Your task to perform on an android device: How do I get to the nearest Target? Image 0: 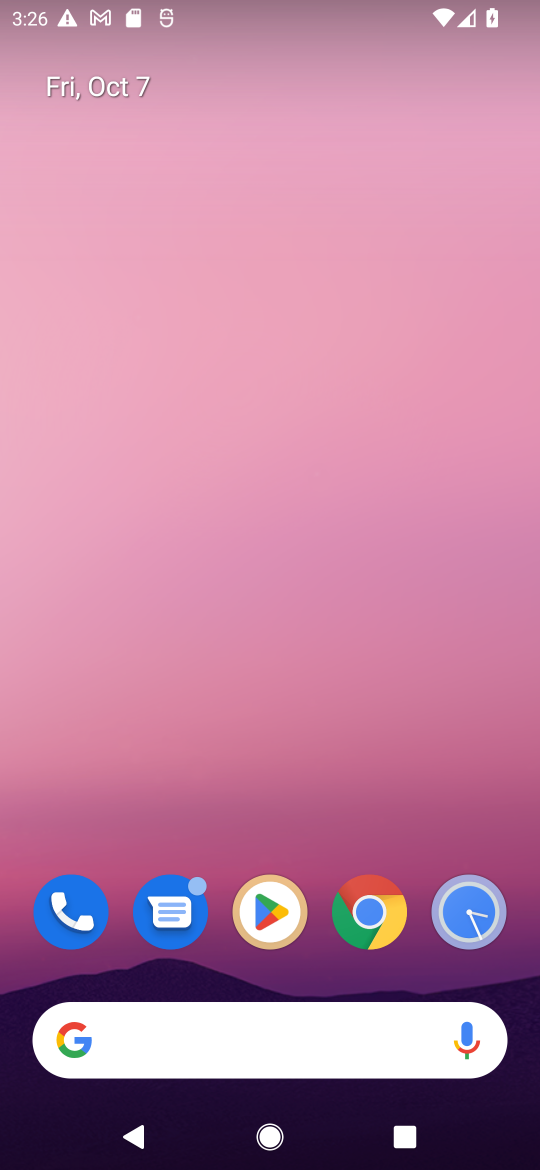
Step 0: drag from (283, 906) to (301, 341)
Your task to perform on an android device: How do I get to the nearest Target? Image 1: 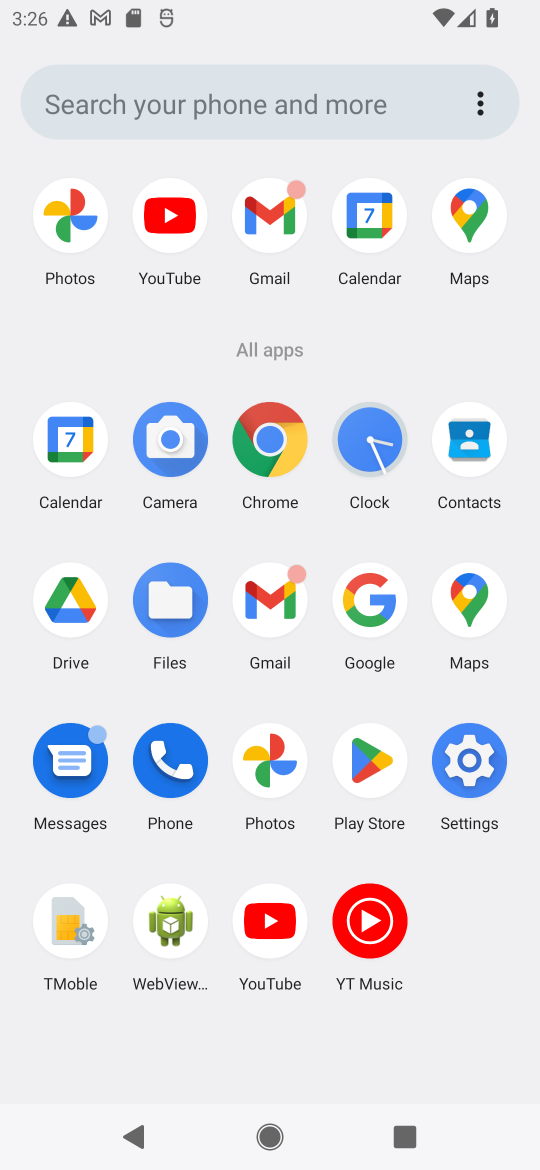
Step 1: click (353, 593)
Your task to perform on an android device: How do I get to the nearest Target? Image 2: 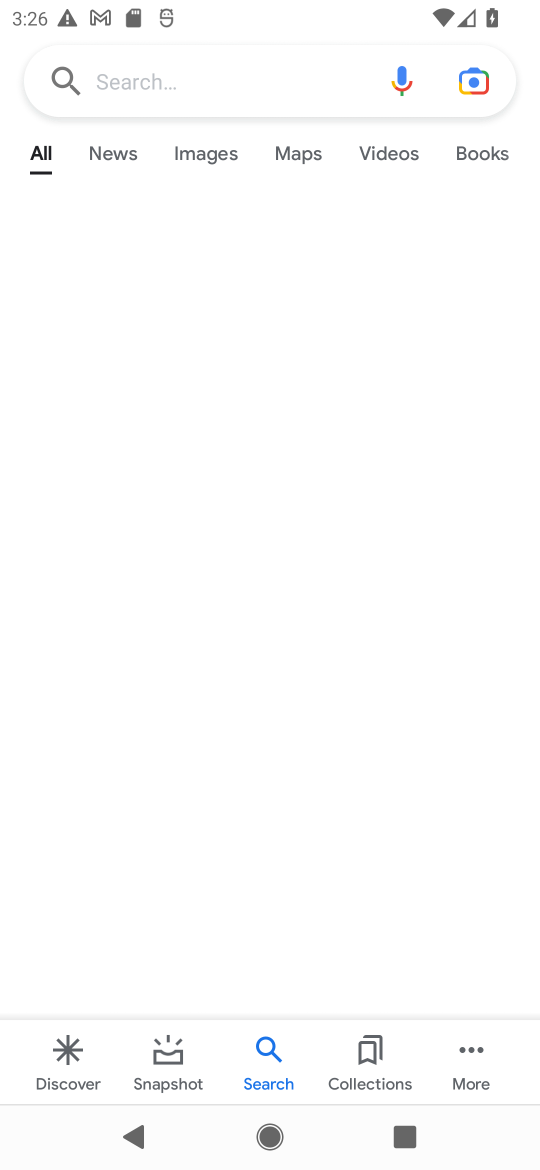
Step 2: click (220, 72)
Your task to perform on an android device: How do I get to the nearest Target? Image 3: 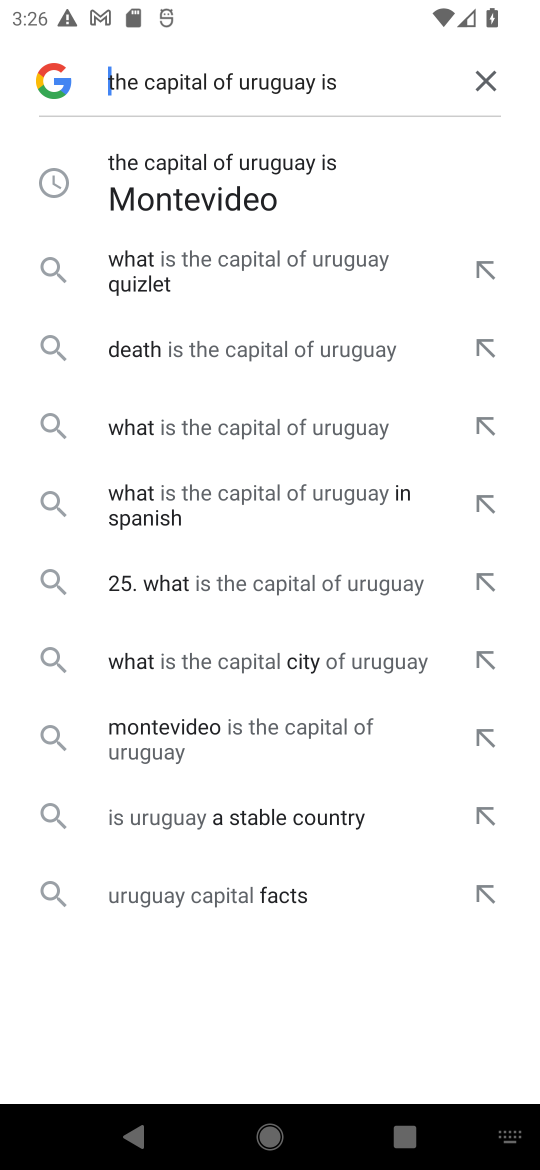
Step 3: type "How do I get to the nearest Target "
Your task to perform on an android device: How do I get to the nearest Target? Image 4: 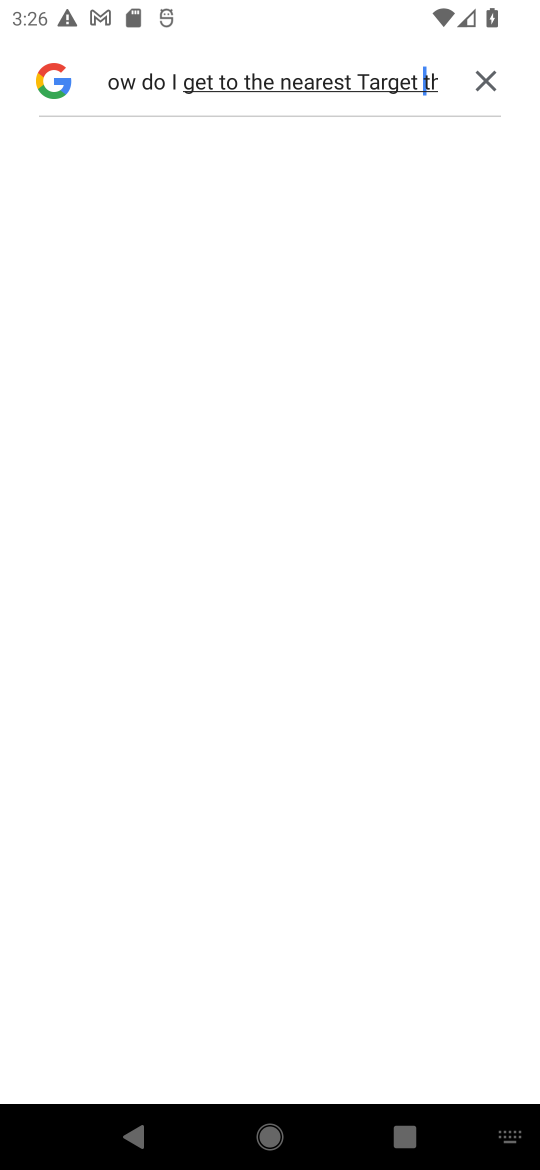
Step 4: click (481, 72)
Your task to perform on an android device: How do I get to the nearest Target? Image 5: 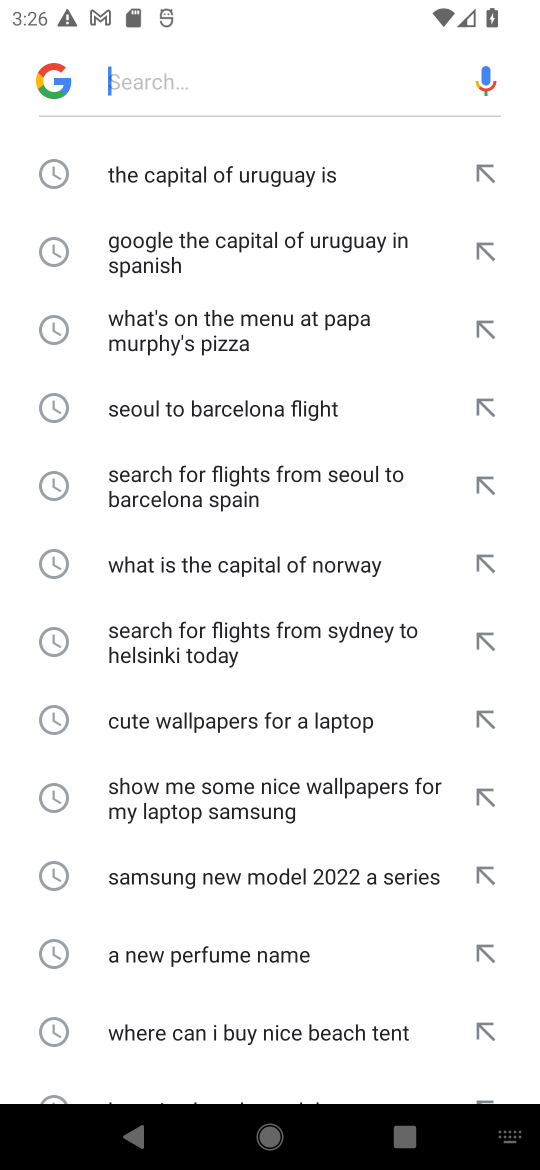
Step 5: click (316, 75)
Your task to perform on an android device: How do I get to the nearest Target? Image 6: 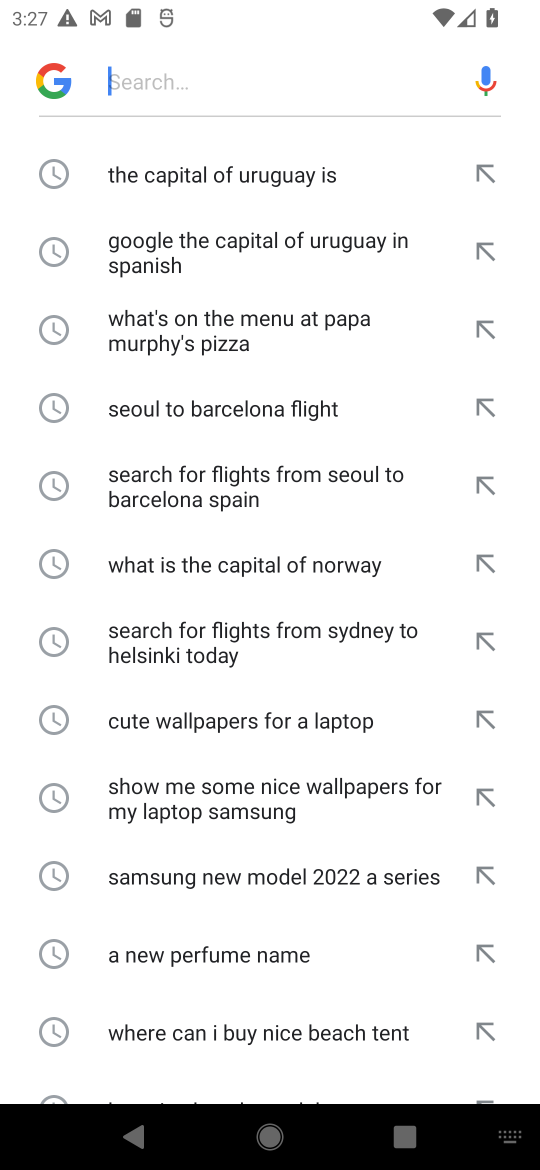
Step 6: type "How do I get to the nearest Target? "
Your task to perform on an android device: How do I get to the nearest Target? Image 7: 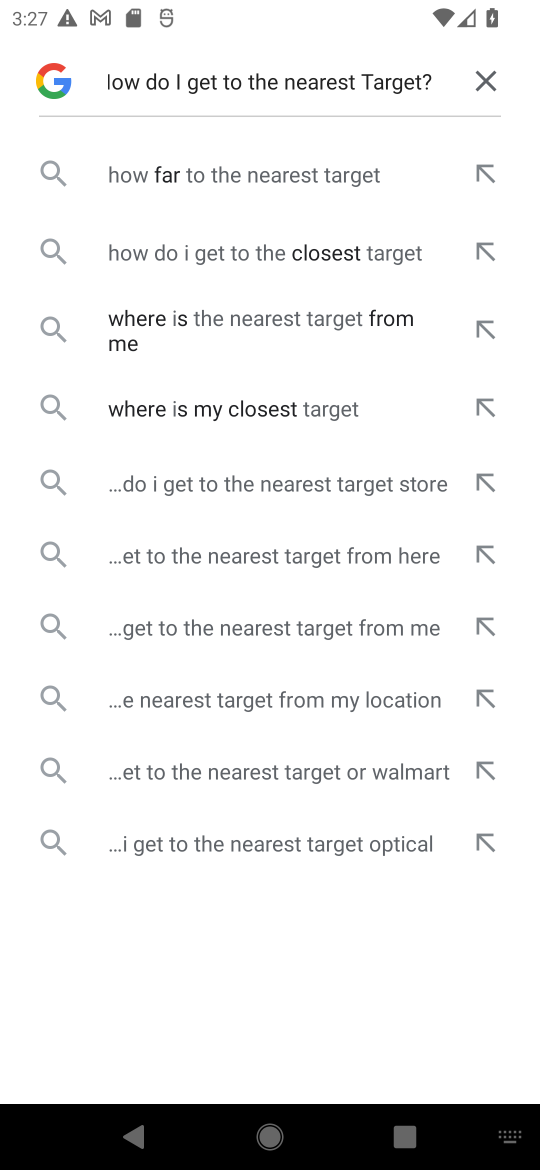
Step 7: click (211, 177)
Your task to perform on an android device: How do I get to the nearest Target? Image 8: 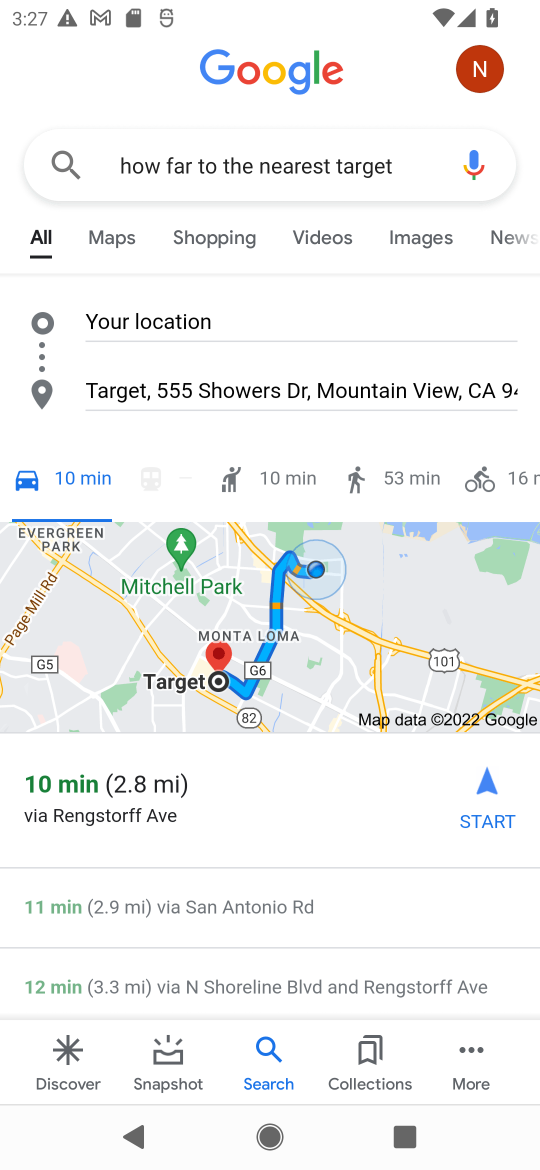
Step 8: click (393, 178)
Your task to perform on an android device: How do I get to the nearest Target? Image 9: 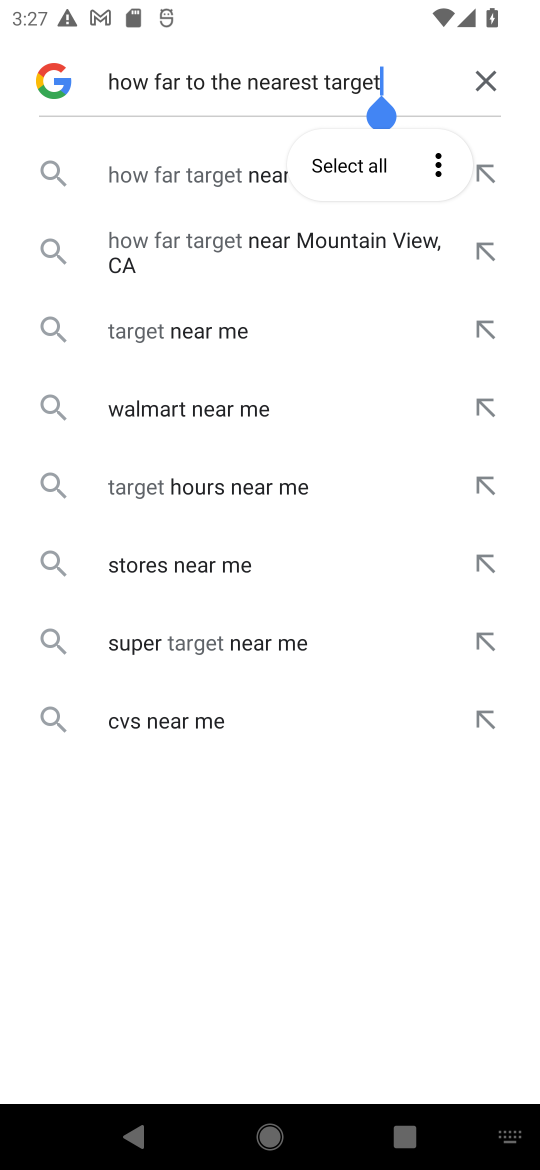
Step 9: click (486, 81)
Your task to perform on an android device: How do I get to the nearest Target? Image 10: 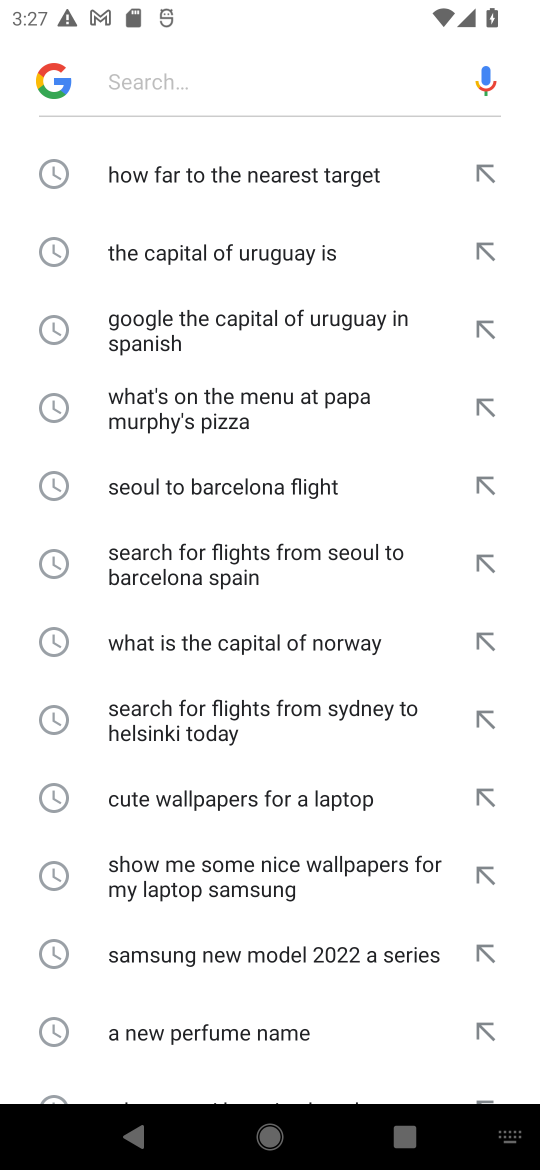
Step 10: click (144, 67)
Your task to perform on an android device: How do I get to the nearest Target? Image 11: 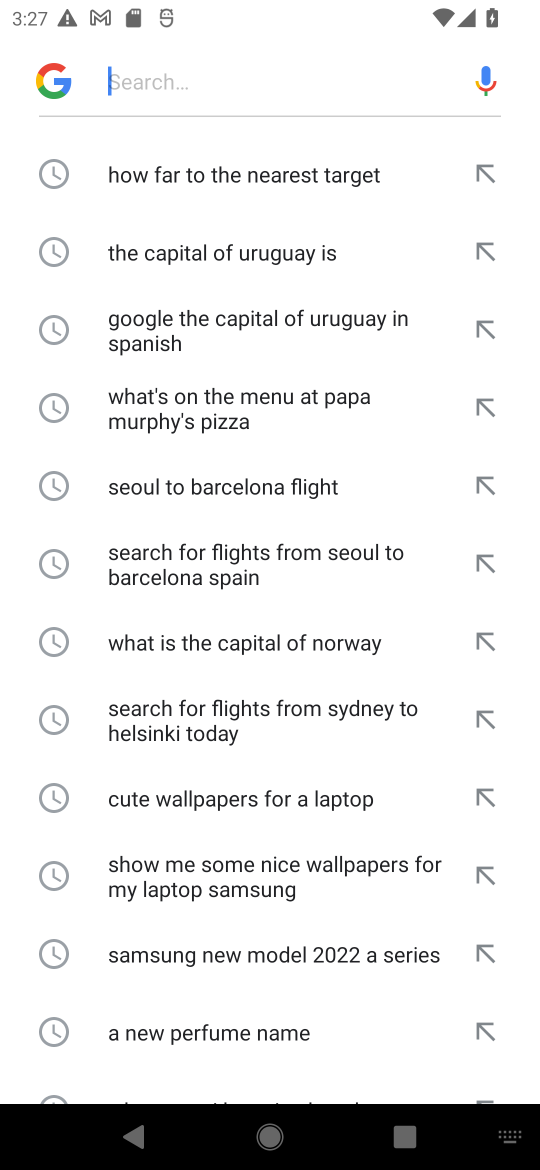
Step 11: type "How do I get to the nearest Target? "
Your task to perform on an android device: How do I get to the nearest Target? Image 12: 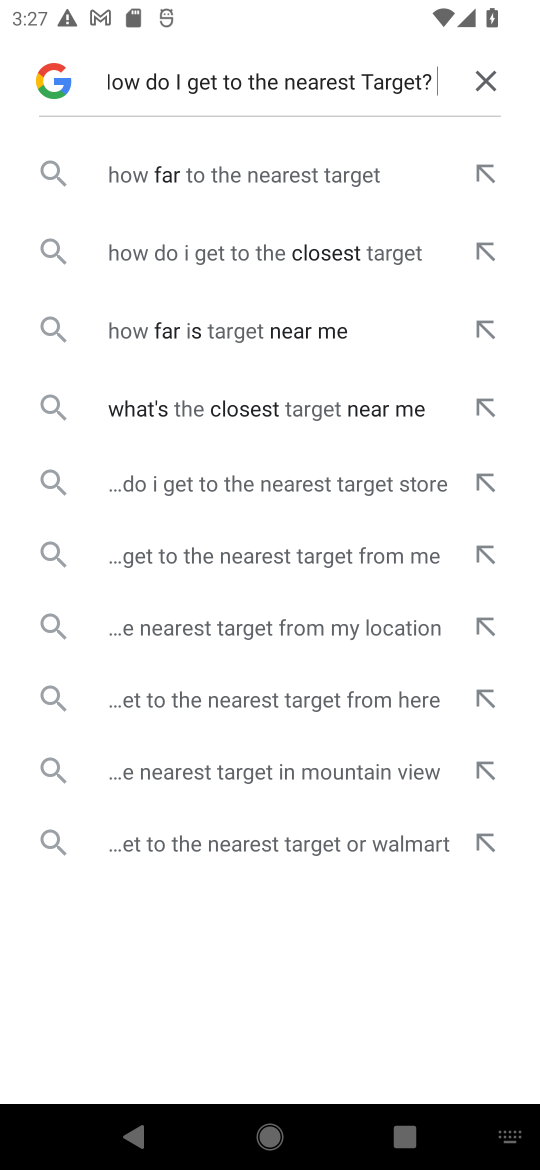
Step 12: click (236, 160)
Your task to perform on an android device: How do I get to the nearest Target? Image 13: 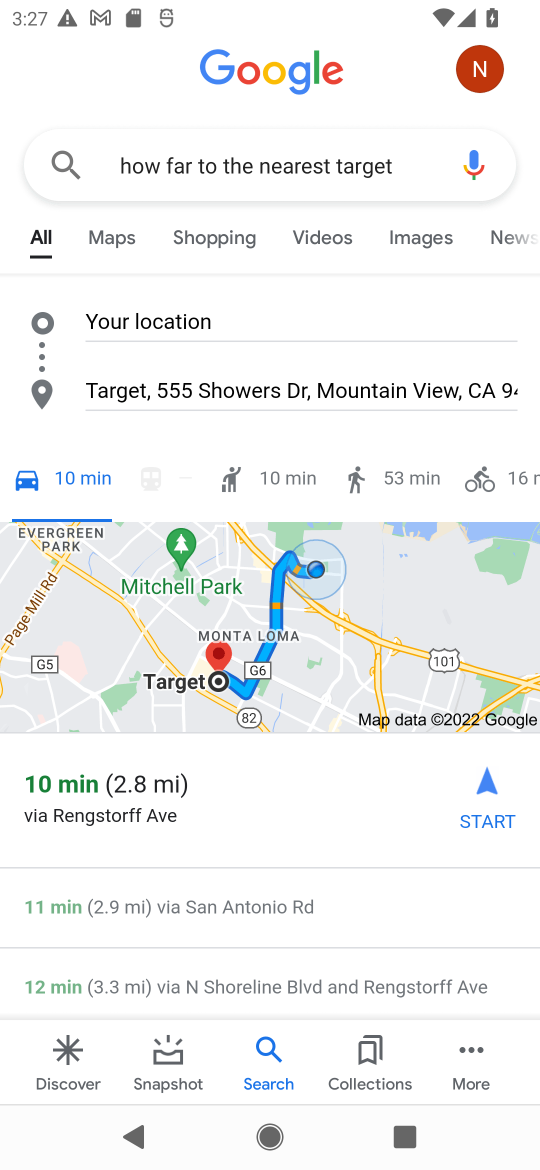
Step 13: task complete